Your task to perform on an android device: refresh tabs in the chrome app Image 0: 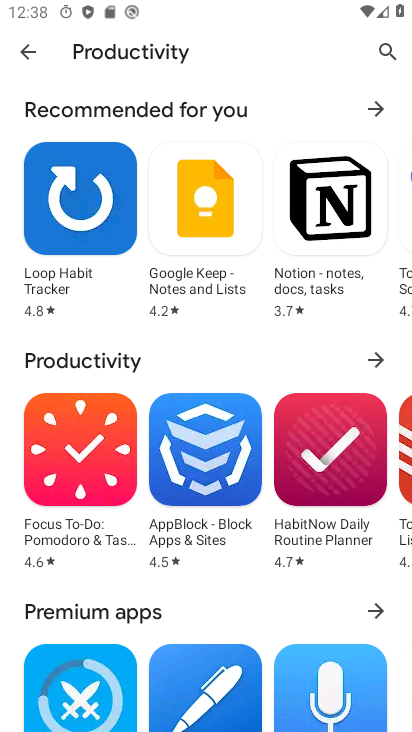
Step 0: press back button
Your task to perform on an android device: refresh tabs in the chrome app Image 1: 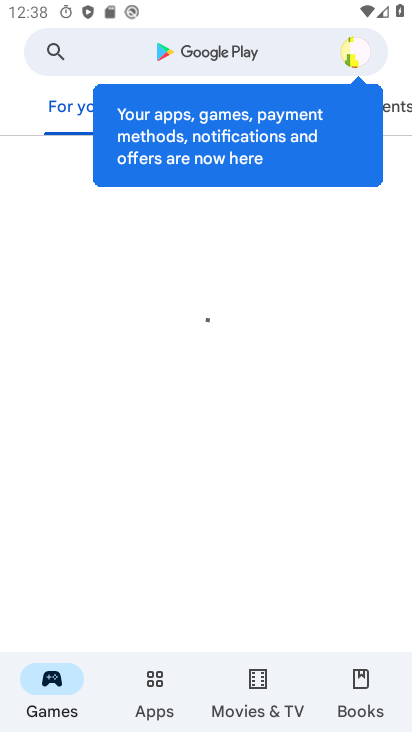
Step 1: press home button
Your task to perform on an android device: refresh tabs in the chrome app Image 2: 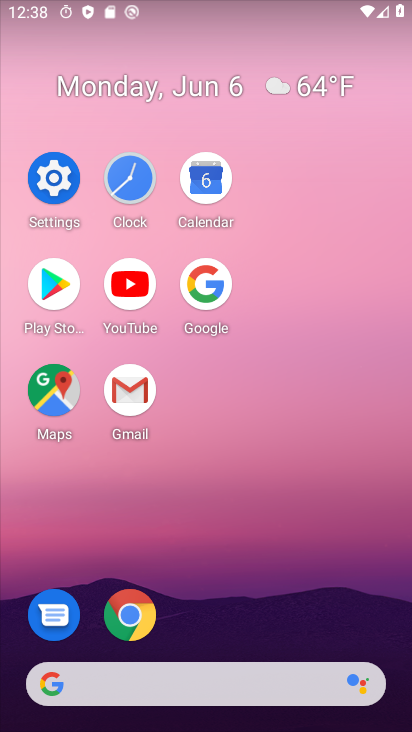
Step 2: click (138, 615)
Your task to perform on an android device: refresh tabs in the chrome app Image 3: 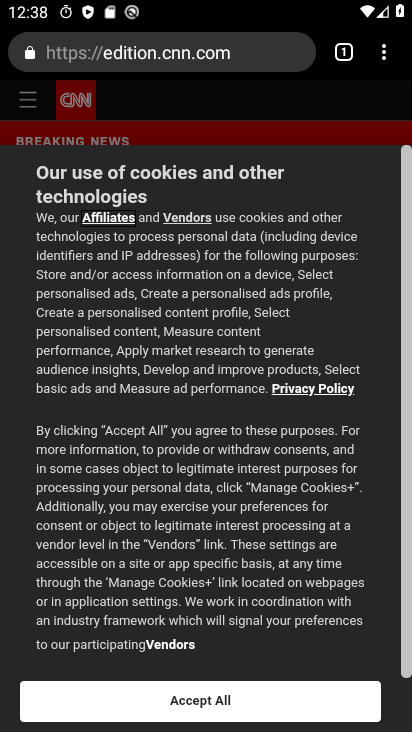
Step 3: click (379, 65)
Your task to perform on an android device: refresh tabs in the chrome app Image 4: 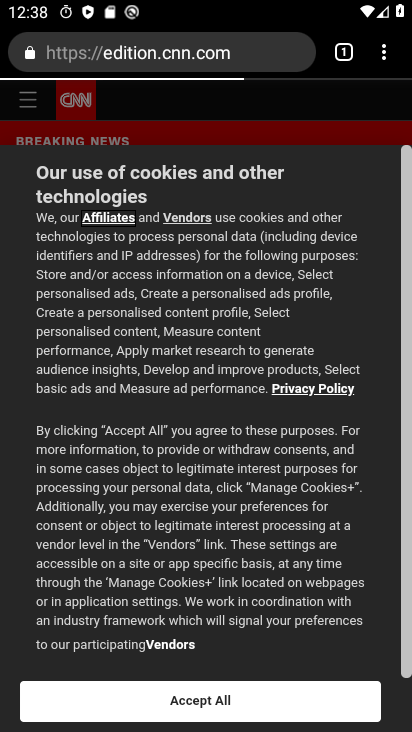
Step 4: click (377, 57)
Your task to perform on an android device: refresh tabs in the chrome app Image 5: 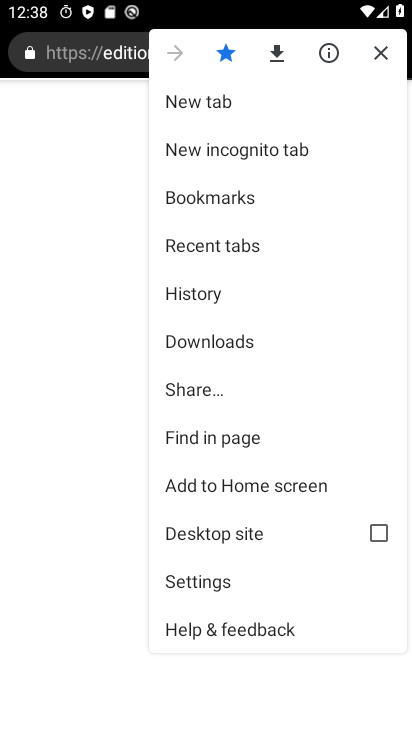
Step 5: click (377, 57)
Your task to perform on an android device: refresh tabs in the chrome app Image 6: 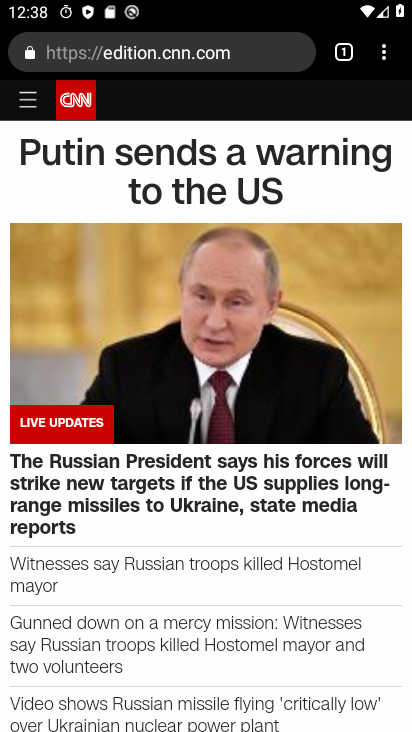
Step 6: click (372, 53)
Your task to perform on an android device: refresh tabs in the chrome app Image 7: 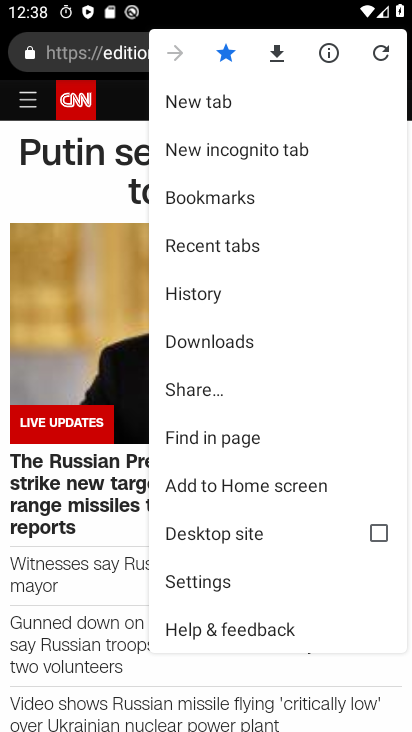
Step 7: click (364, 56)
Your task to perform on an android device: refresh tabs in the chrome app Image 8: 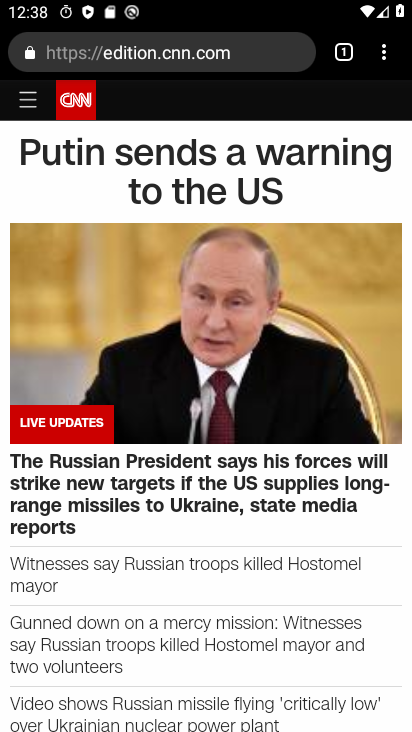
Step 8: task complete